Your task to perform on an android device: Open calendar and show me the fourth week of next month Image 0: 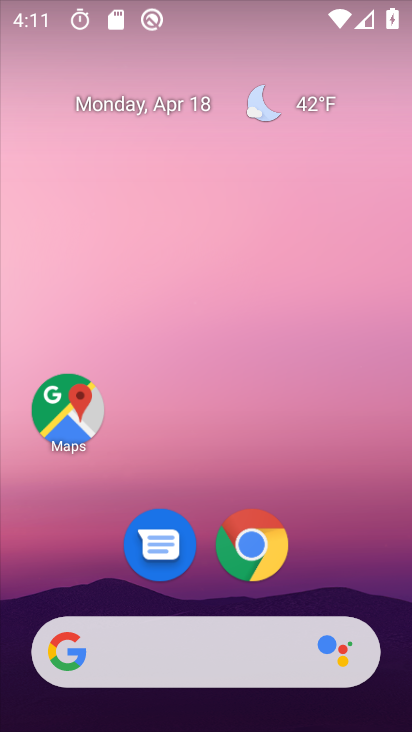
Step 0: drag from (348, 501) to (361, 128)
Your task to perform on an android device: Open calendar and show me the fourth week of next month Image 1: 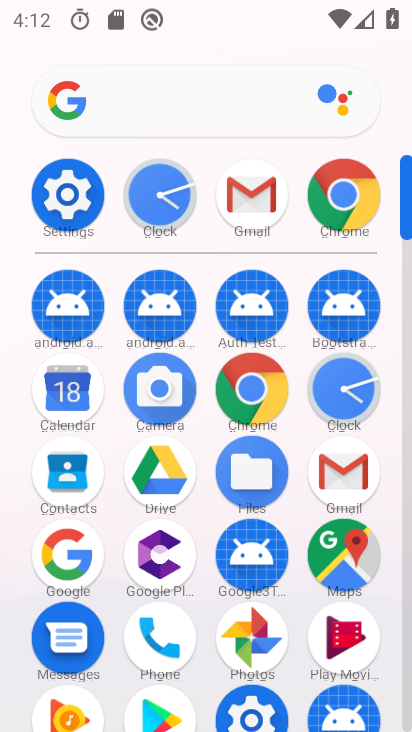
Step 1: click (61, 390)
Your task to perform on an android device: Open calendar and show me the fourth week of next month Image 2: 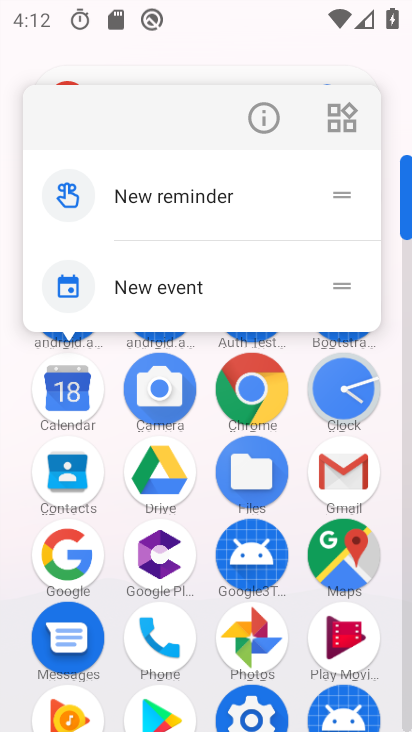
Step 2: click (61, 390)
Your task to perform on an android device: Open calendar and show me the fourth week of next month Image 3: 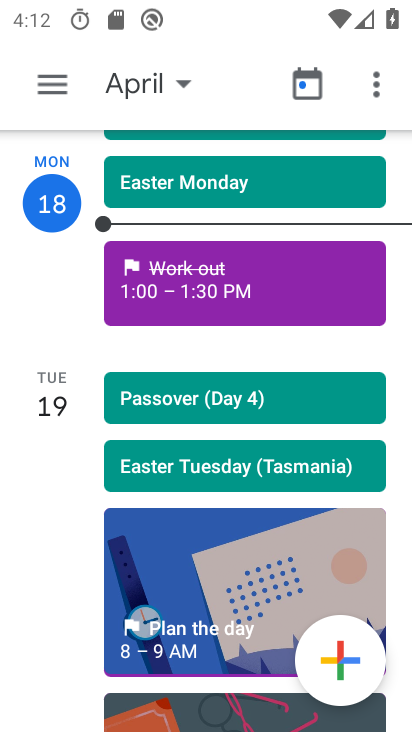
Step 3: click (185, 80)
Your task to perform on an android device: Open calendar and show me the fourth week of next month Image 4: 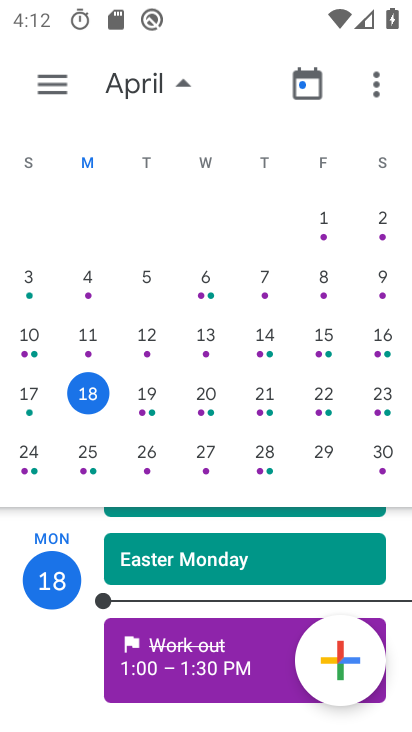
Step 4: click (184, 80)
Your task to perform on an android device: Open calendar and show me the fourth week of next month Image 5: 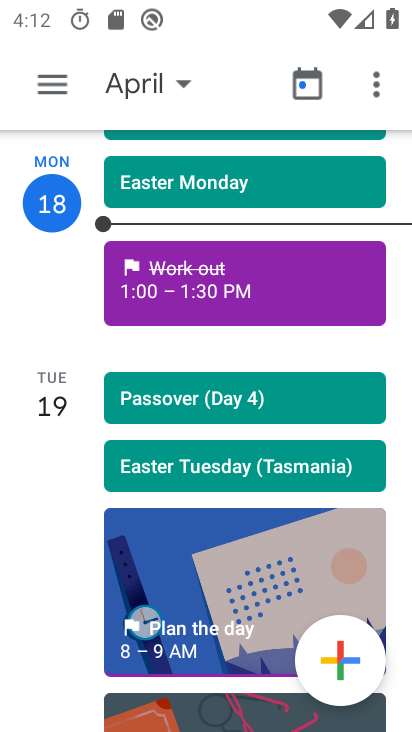
Step 5: click (184, 80)
Your task to perform on an android device: Open calendar and show me the fourth week of next month Image 6: 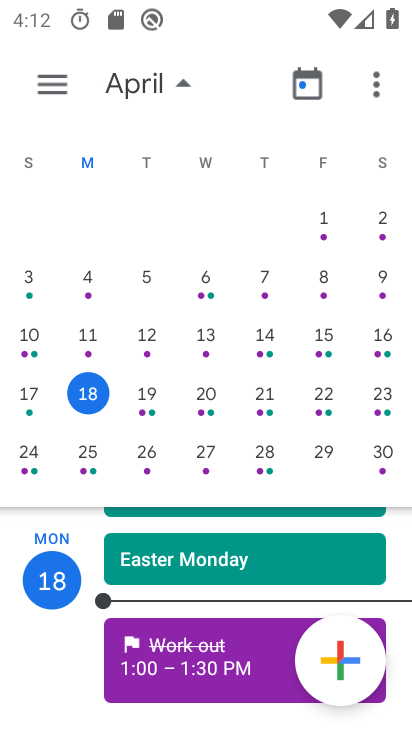
Step 6: drag from (386, 364) to (7, 345)
Your task to perform on an android device: Open calendar and show me the fourth week of next month Image 7: 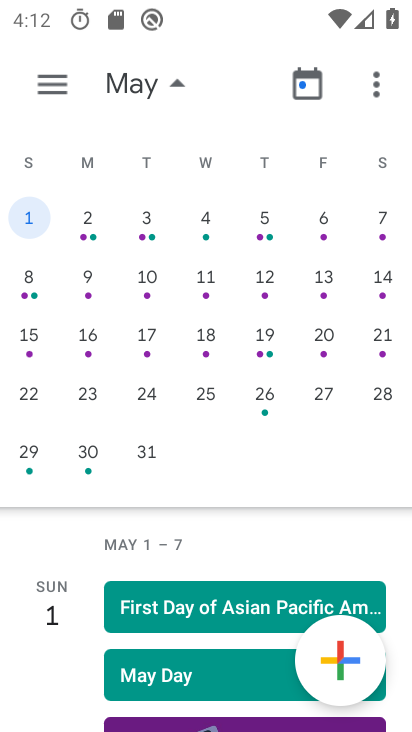
Step 7: click (151, 393)
Your task to perform on an android device: Open calendar and show me the fourth week of next month Image 8: 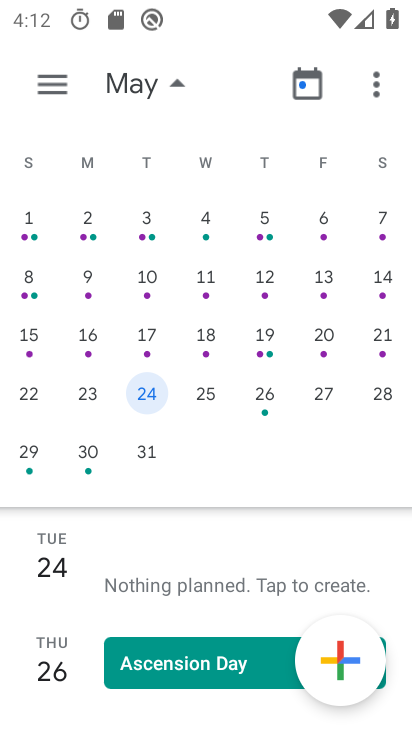
Step 8: task complete